Your task to perform on an android device: Open Chrome and go to settings Image 0: 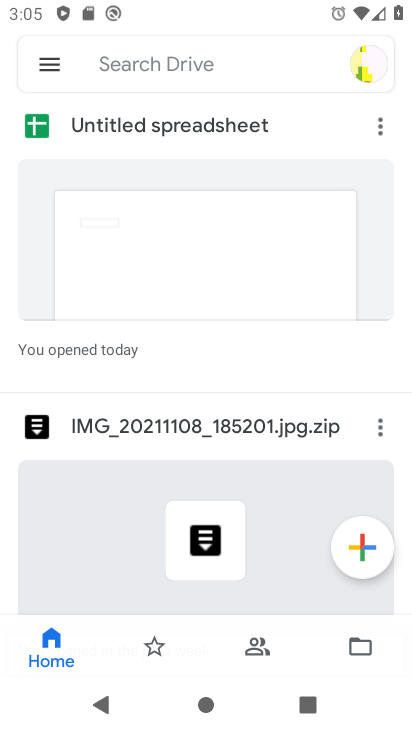
Step 0: press home button
Your task to perform on an android device: Open Chrome and go to settings Image 1: 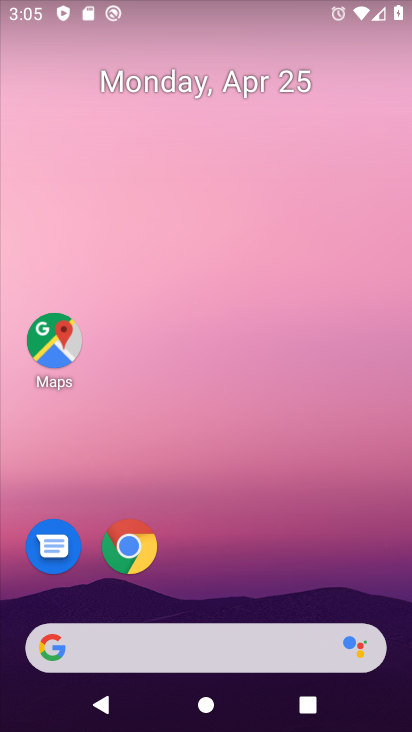
Step 1: click (130, 545)
Your task to perform on an android device: Open Chrome and go to settings Image 2: 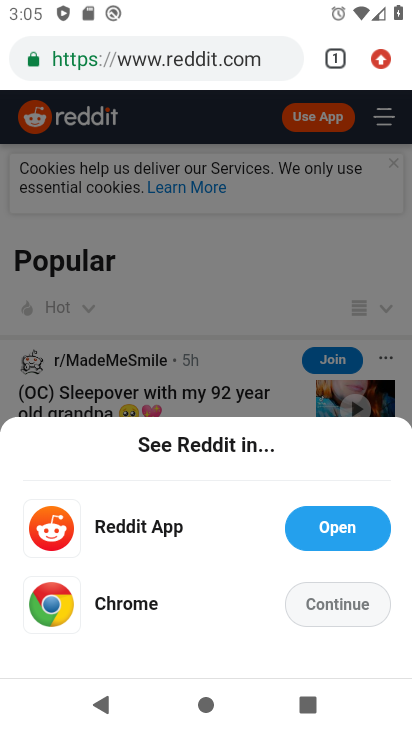
Step 2: click (384, 51)
Your task to perform on an android device: Open Chrome and go to settings Image 3: 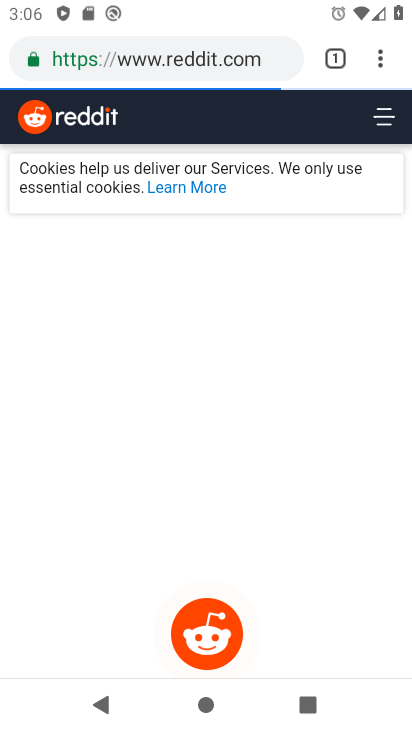
Step 3: click (384, 51)
Your task to perform on an android device: Open Chrome and go to settings Image 4: 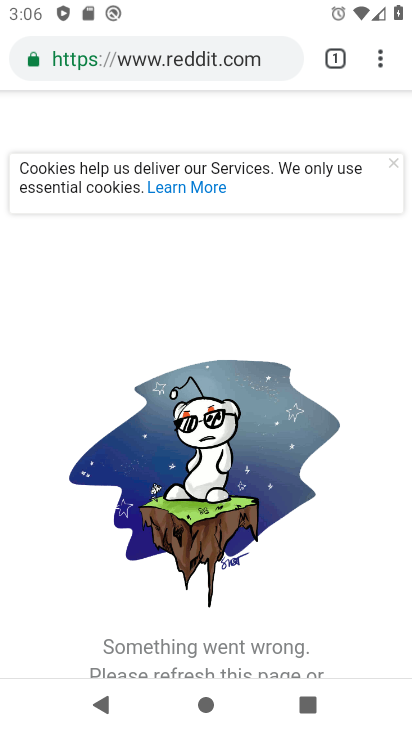
Step 4: click (366, 53)
Your task to perform on an android device: Open Chrome and go to settings Image 5: 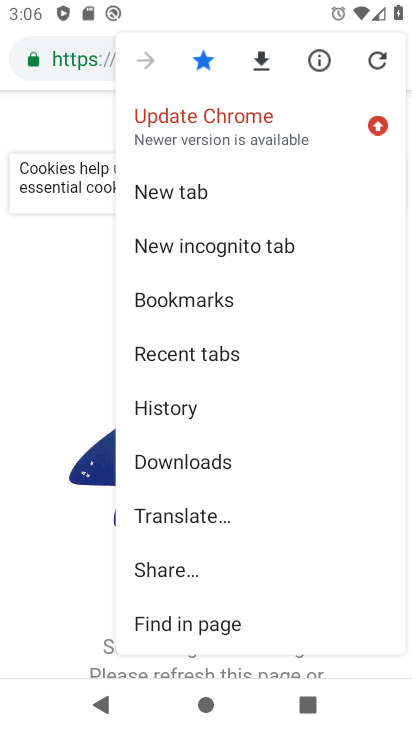
Step 5: drag from (205, 599) to (180, 217)
Your task to perform on an android device: Open Chrome and go to settings Image 6: 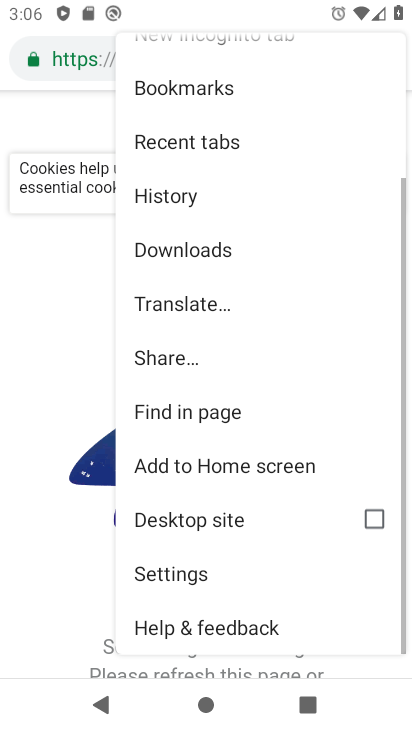
Step 6: click (211, 563)
Your task to perform on an android device: Open Chrome and go to settings Image 7: 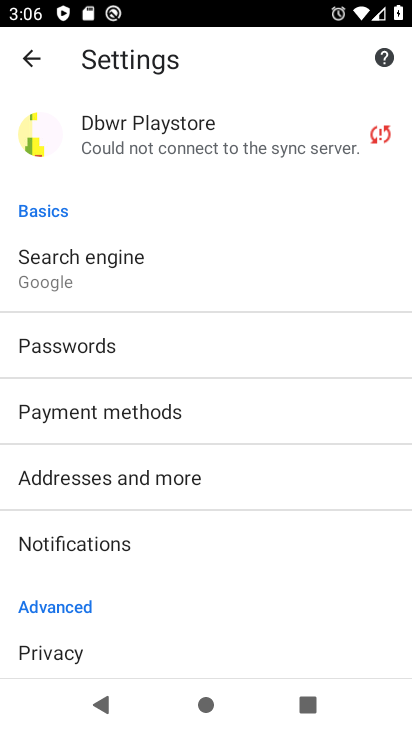
Step 7: task complete